Your task to perform on an android device: What's the weather going to be tomorrow? Image 0: 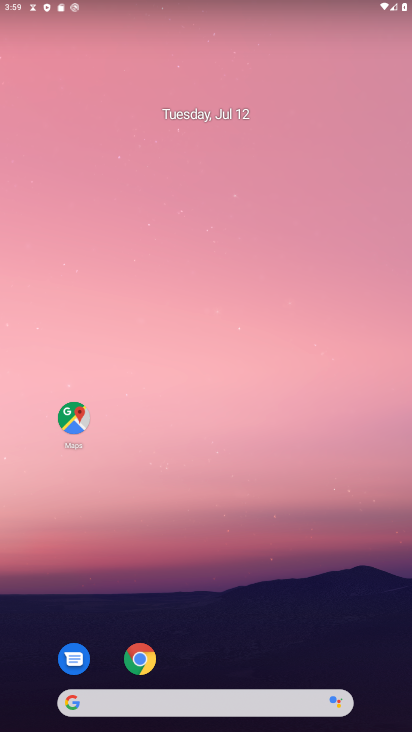
Step 0: press home button
Your task to perform on an android device: What's the weather going to be tomorrow? Image 1: 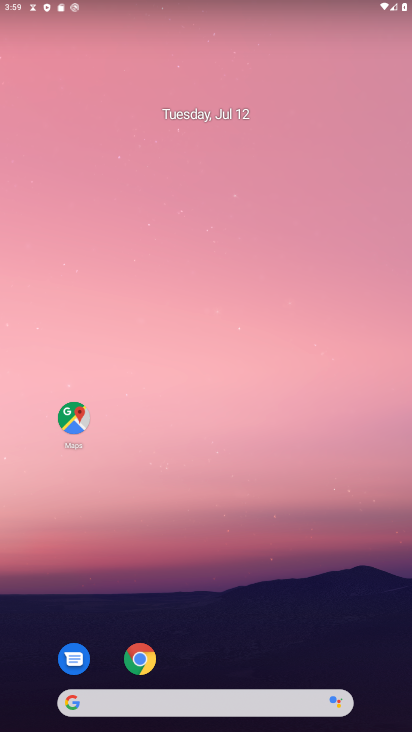
Step 1: click (71, 704)
Your task to perform on an android device: What's the weather going to be tomorrow? Image 2: 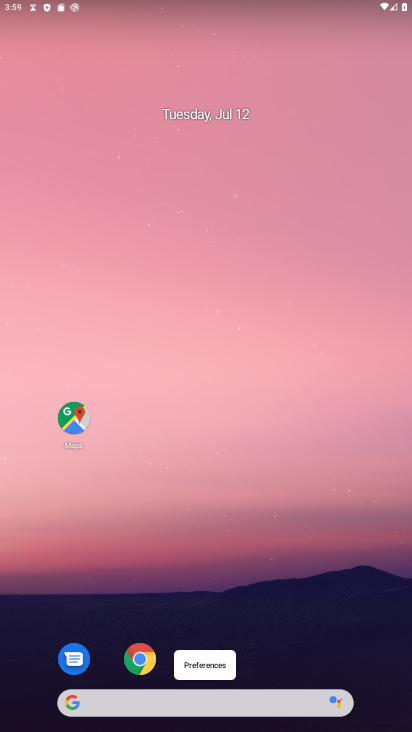
Step 2: click (71, 704)
Your task to perform on an android device: What's the weather going to be tomorrow? Image 3: 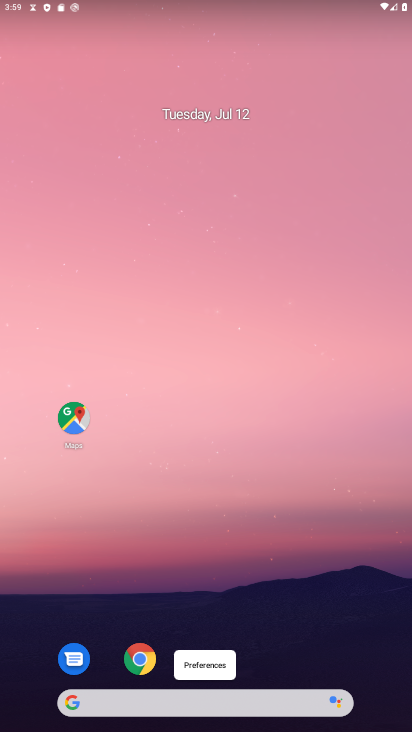
Step 3: click (71, 704)
Your task to perform on an android device: What's the weather going to be tomorrow? Image 4: 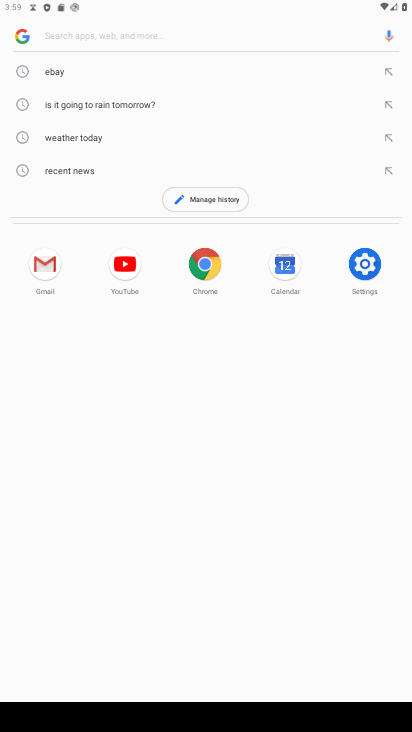
Step 4: type "weather going to be tomorrow?"
Your task to perform on an android device: What's the weather going to be tomorrow? Image 5: 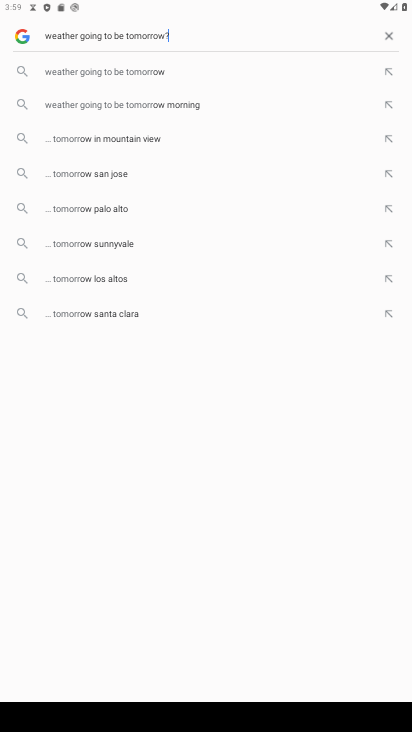
Step 5: press enter
Your task to perform on an android device: What's the weather going to be tomorrow? Image 6: 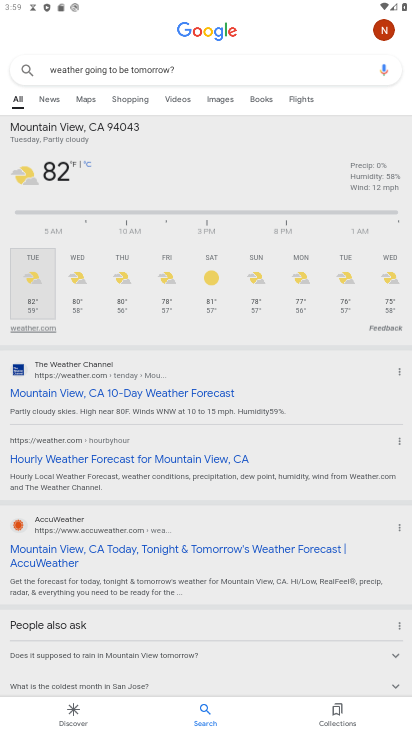
Step 6: task complete